Your task to perform on an android device: Go to sound settings Image 0: 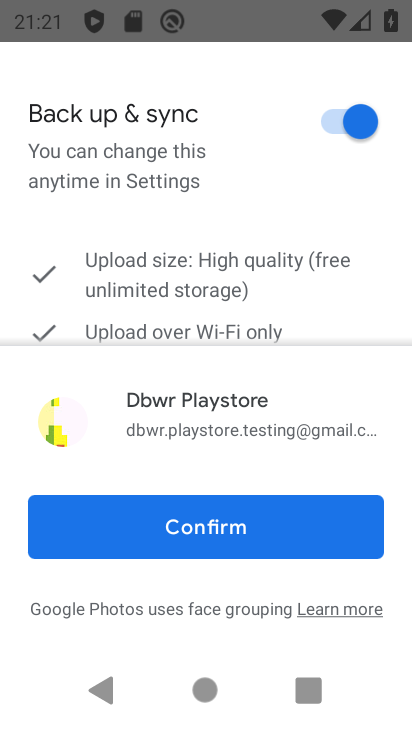
Step 0: press home button
Your task to perform on an android device: Go to sound settings Image 1: 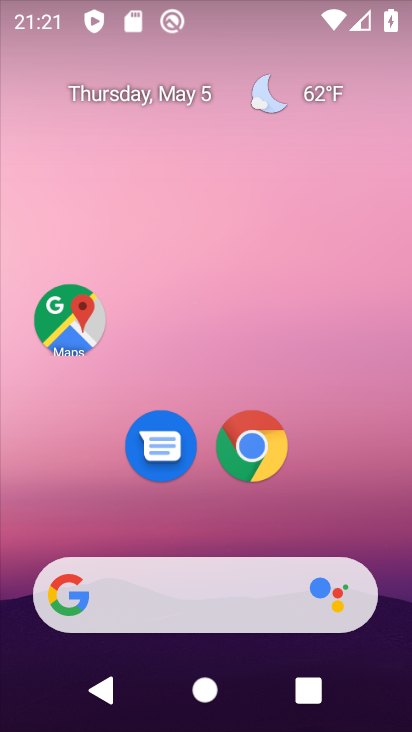
Step 1: drag from (226, 382) to (173, 247)
Your task to perform on an android device: Go to sound settings Image 2: 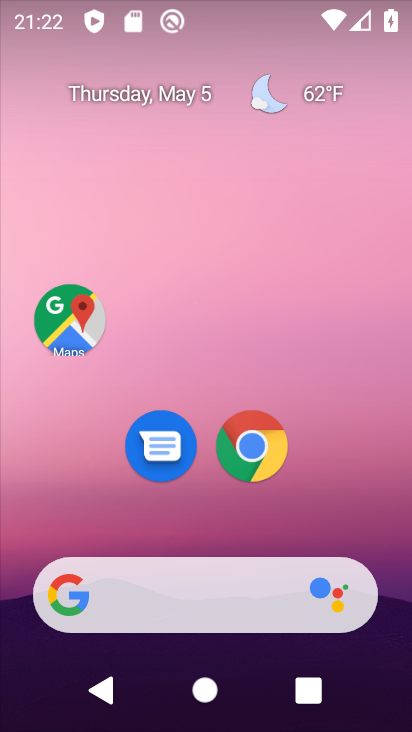
Step 2: drag from (224, 637) to (264, 280)
Your task to perform on an android device: Go to sound settings Image 3: 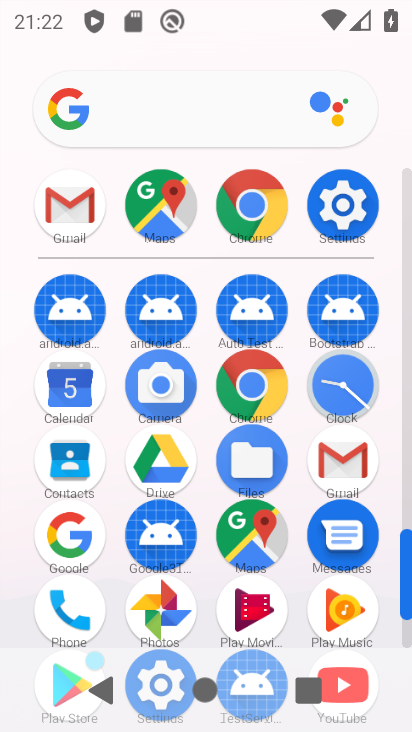
Step 3: click (341, 197)
Your task to perform on an android device: Go to sound settings Image 4: 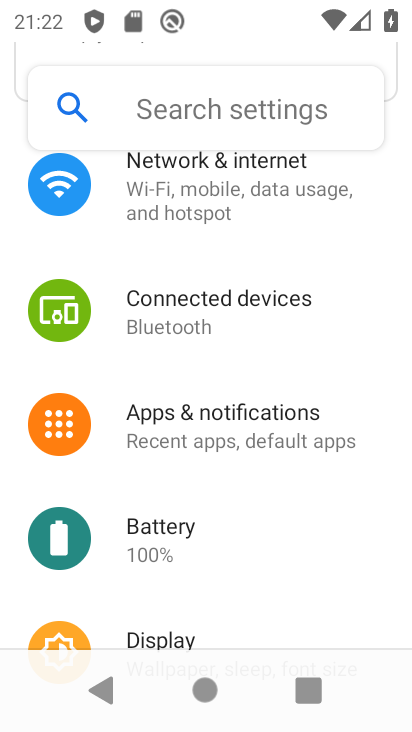
Step 4: click (181, 106)
Your task to perform on an android device: Go to sound settings Image 5: 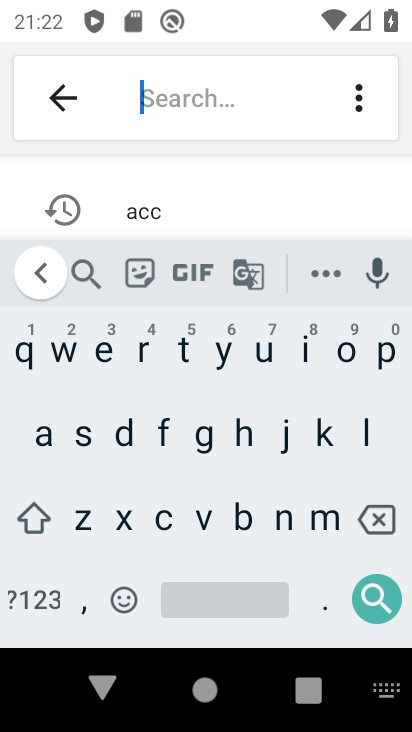
Step 5: click (80, 438)
Your task to perform on an android device: Go to sound settings Image 6: 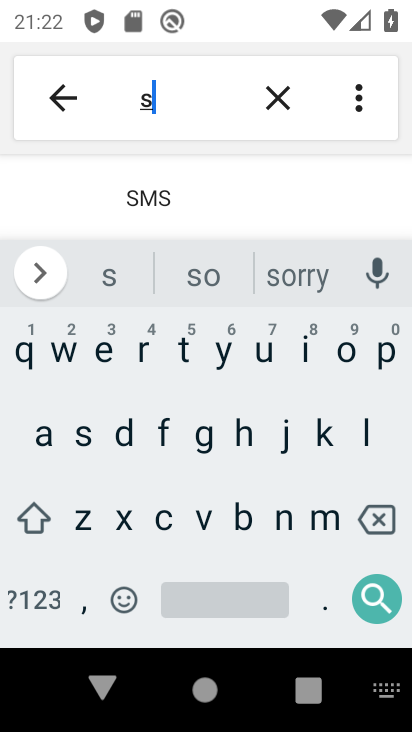
Step 6: click (344, 364)
Your task to perform on an android device: Go to sound settings Image 7: 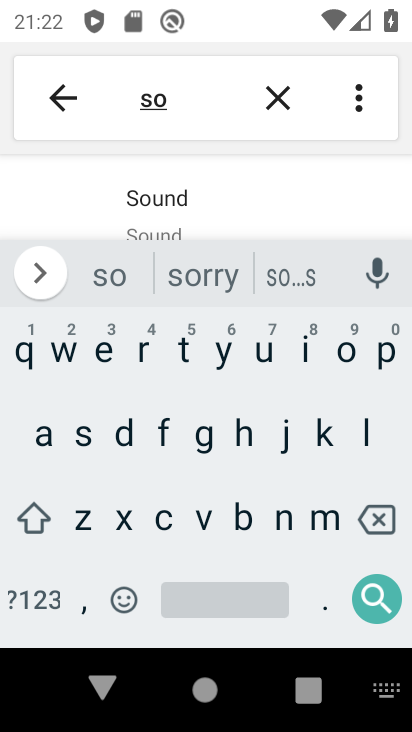
Step 7: click (189, 214)
Your task to perform on an android device: Go to sound settings Image 8: 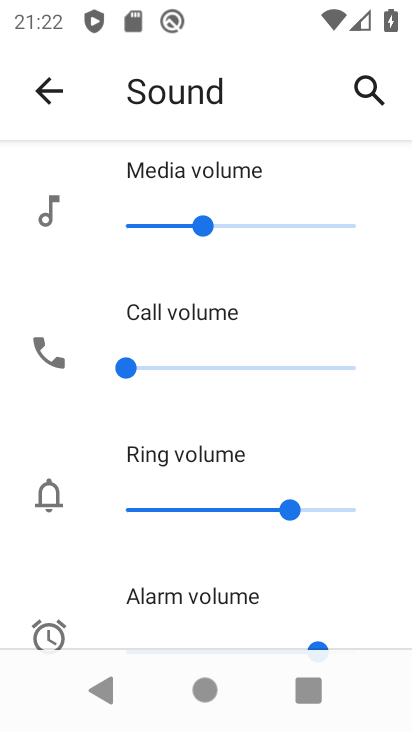
Step 8: task complete